Your task to perform on an android device: Open display settings Image 0: 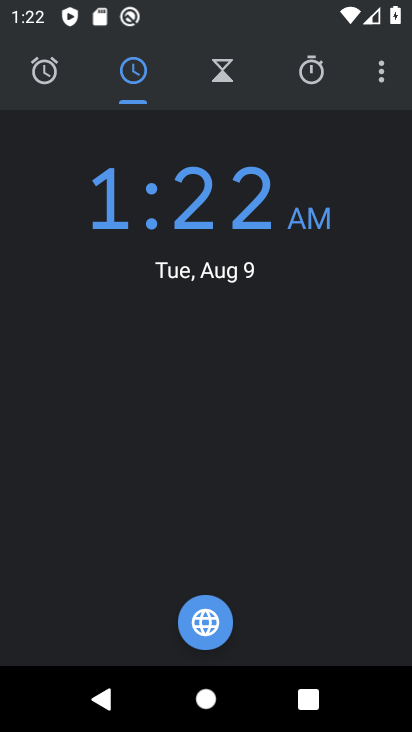
Step 0: press back button
Your task to perform on an android device: Open display settings Image 1: 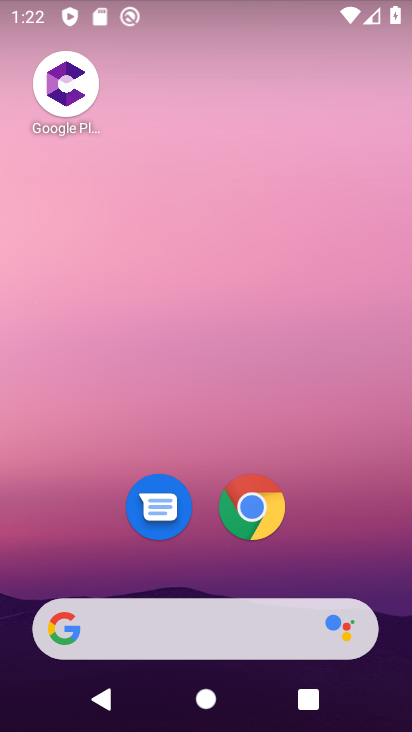
Step 1: drag from (204, 578) to (233, 0)
Your task to perform on an android device: Open display settings Image 2: 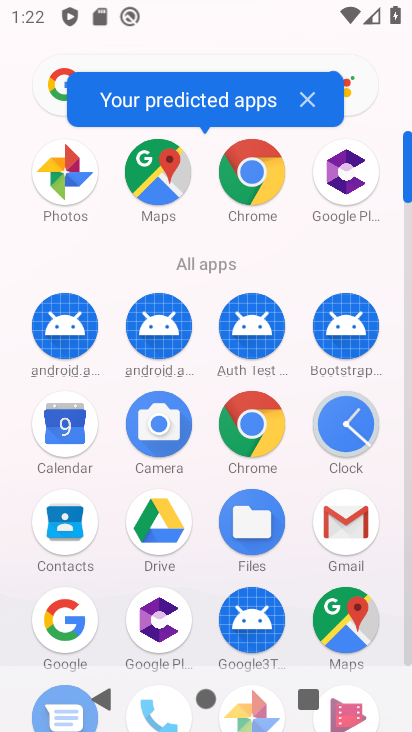
Step 2: drag from (225, 541) to (288, 27)
Your task to perform on an android device: Open display settings Image 3: 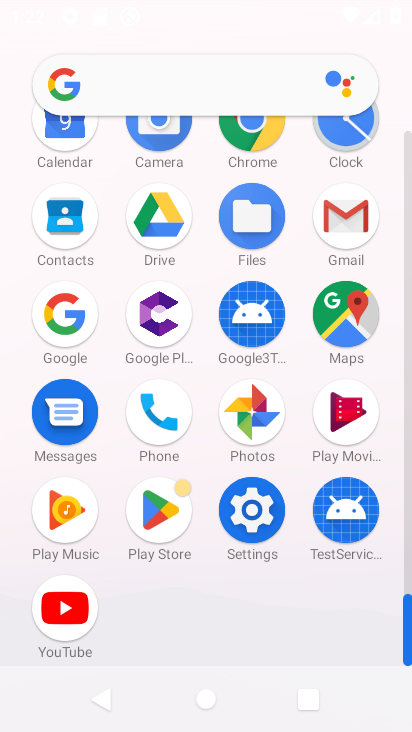
Step 3: click (250, 519)
Your task to perform on an android device: Open display settings Image 4: 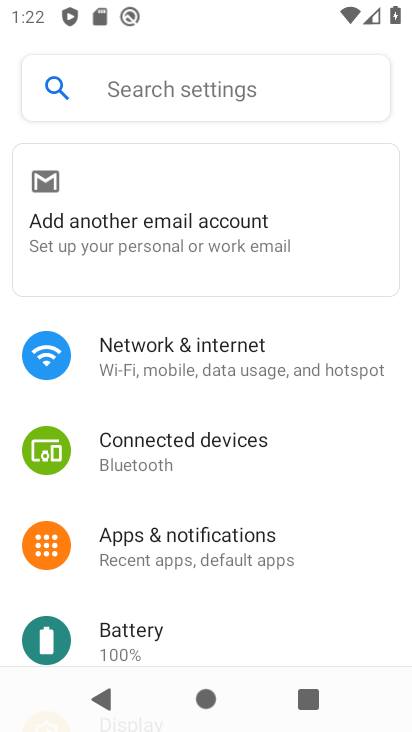
Step 4: drag from (124, 637) to (290, 124)
Your task to perform on an android device: Open display settings Image 5: 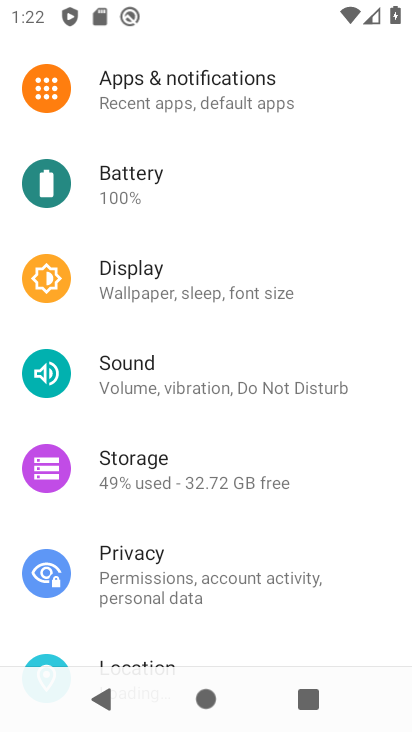
Step 5: click (159, 270)
Your task to perform on an android device: Open display settings Image 6: 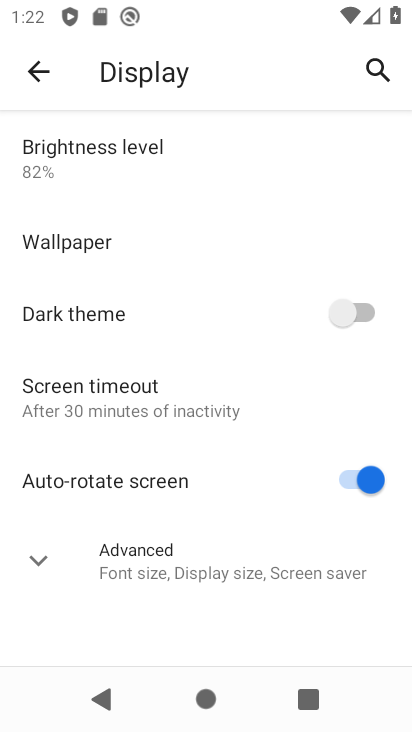
Step 6: task complete